Your task to perform on an android device: open app "Speedtest by Ookla" (install if not already installed), go to login, and select forgot password Image 0: 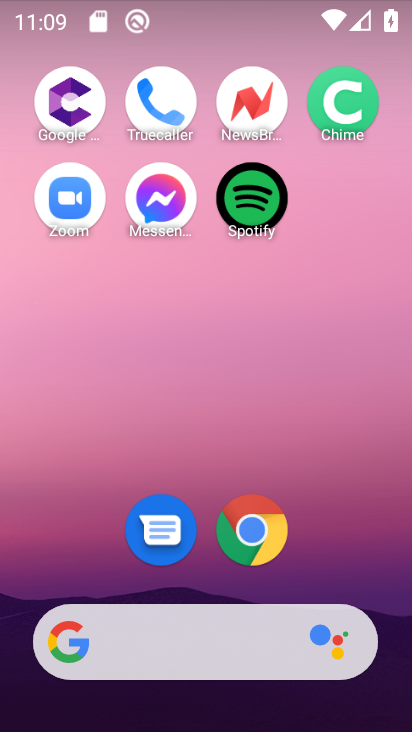
Step 0: drag from (166, 661) to (137, 47)
Your task to perform on an android device: open app "Speedtest by Ookla" (install if not already installed), go to login, and select forgot password Image 1: 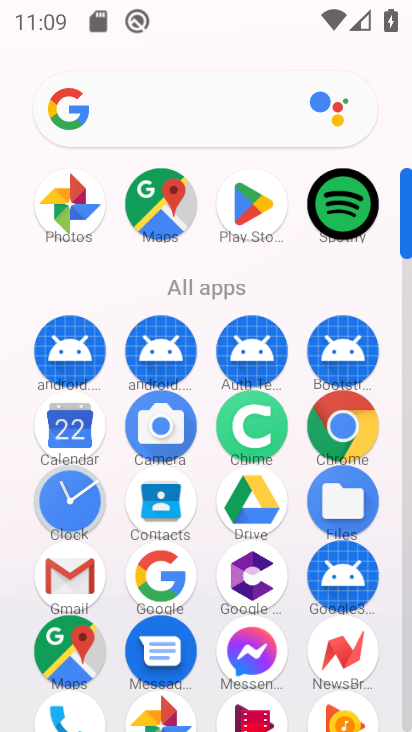
Step 1: click (251, 205)
Your task to perform on an android device: open app "Speedtest by Ookla" (install if not already installed), go to login, and select forgot password Image 2: 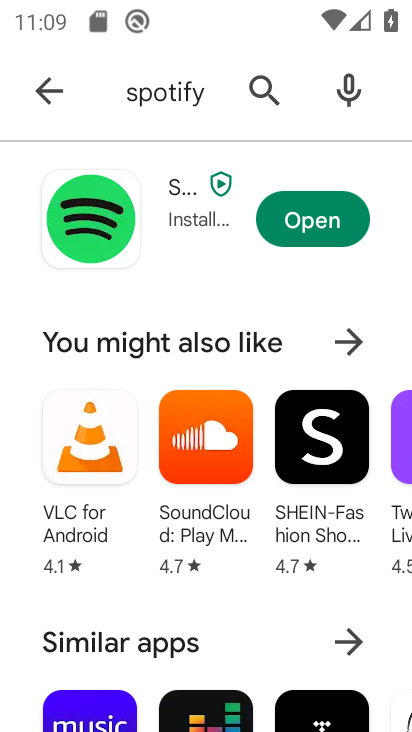
Step 2: press back button
Your task to perform on an android device: open app "Speedtest by Ookla" (install if not already installed), go to login, and select forgot password Image 3: 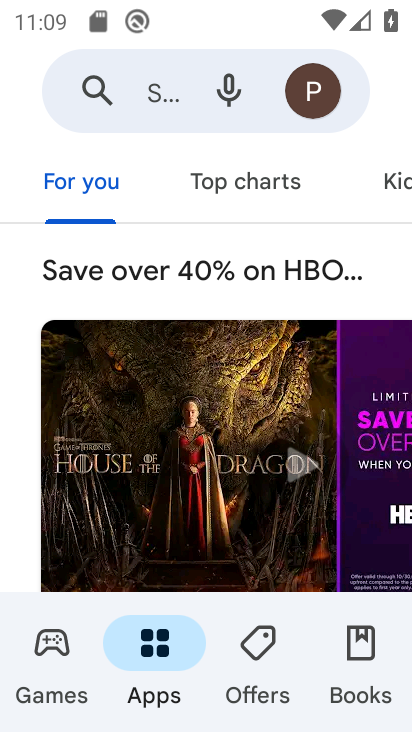
Step 3: click (184, 97)
Your task to perform on an android device: open app "Speedtest by Ookla" (install if not already installed), go to login, and select forgot password Image 4: 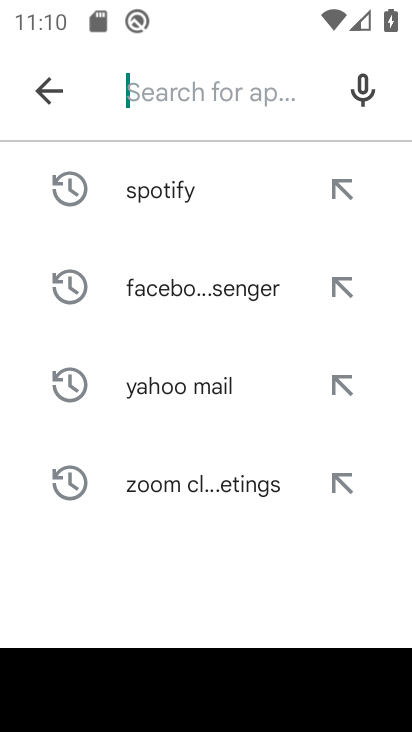
Step 4: type "Speedtest by Ookla"
Your task to perform on an android device: open app "Speedtest by Ookla" (install if not already installed), go to login, and select forgot password Image 5: 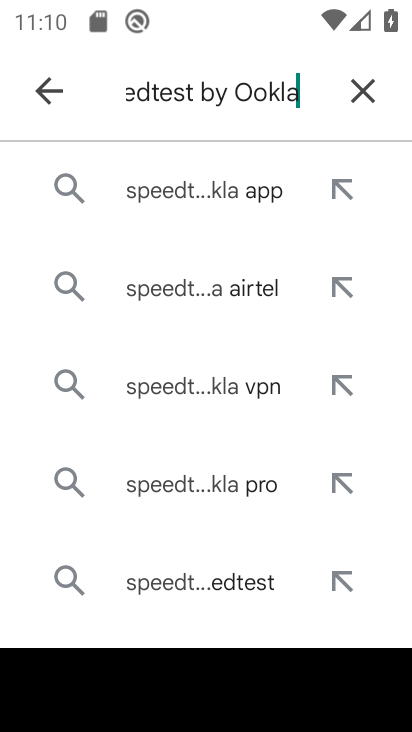
Step 5: click (268, 189)
Your task to perform on an android device: open app "Speedtest by Ookla" (install if not already installed), go to login, and select forgot password Image 6: 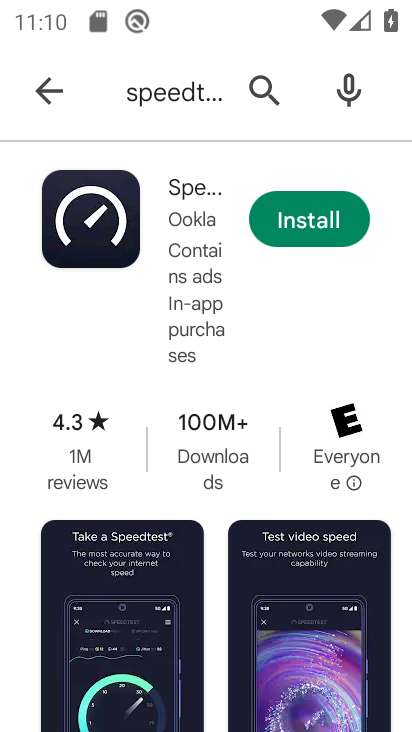
Step 6: click (312, 226)
Your task to perform on an android device: open app "Speedtest by Ookla" (install if not already installed), go to login, and select forgot password Image 7: 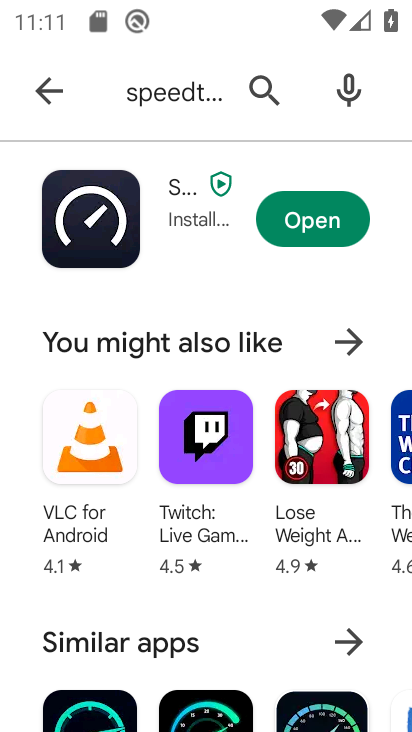
Step 7: click (312, 226)
Your task to perform on an android device: open app "Speedtest by Ookla" (install if not already installed), go to login, and select forgot password Image 8: 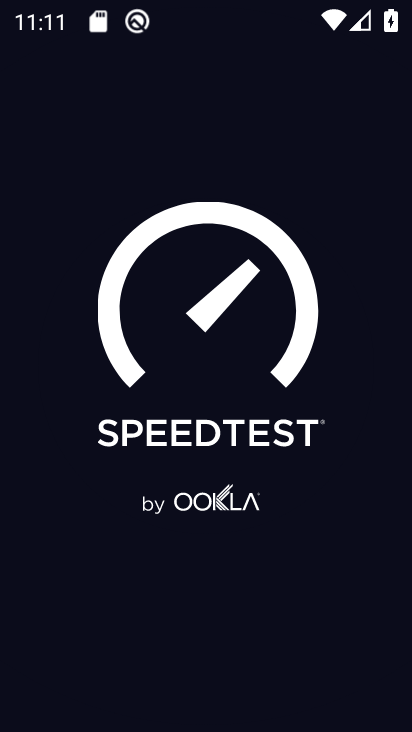
Step 8: click (302, 499)
Your task to perform on an android device: open app "Speedtest by Ookla" (install if not already installed), go to login, and select forgot password Image 9: 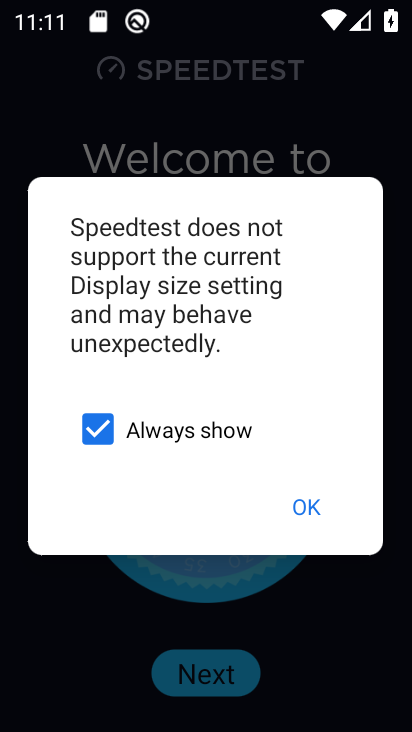
Step 9: click (311, 511)
Your task to perform on an android device: open app "Speedtest by Ookla" (install if not already installed), go to login, and select forgot password Image 10: 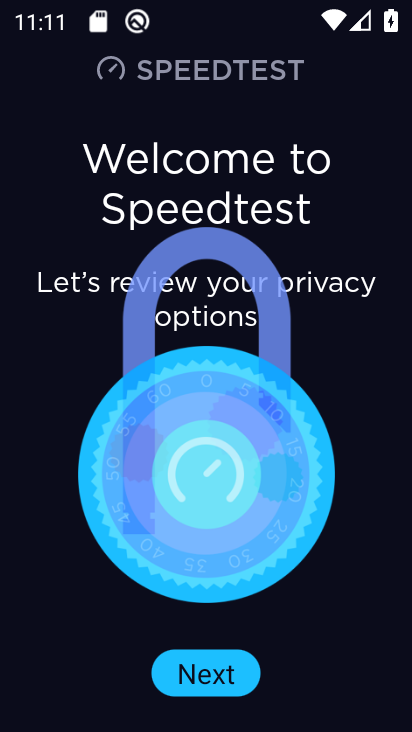
Step 10: click (197, 678)
Your task to perform on an android device: open app "Speedtest by Ookla" (install if not already installed), go to login, and select forgot password Image 11: 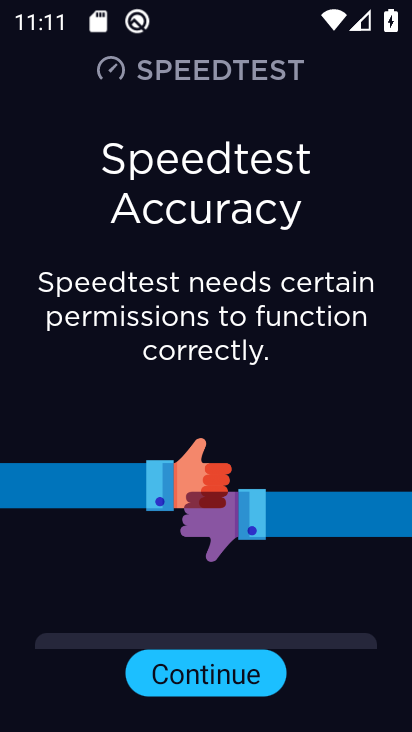
Step 11: click (197, 678)
Your task to perform on an android device: open app "Speedtest by Ookla" (install if not already installed), go to login, and select forgot password Image 12: 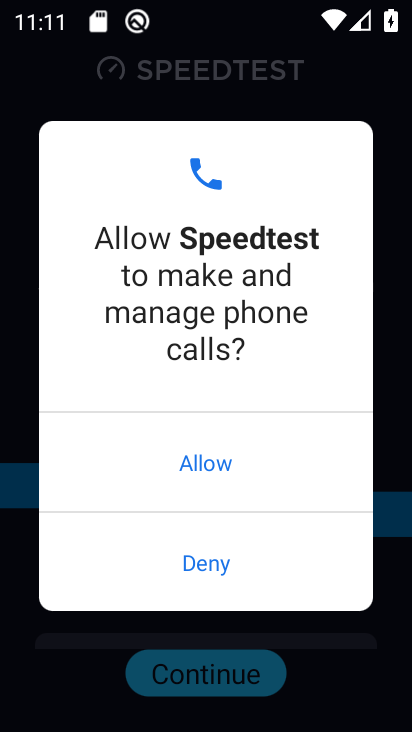
Step 12: click (214, 461)
Your task to perform on an android device: open app "Speedtest by Ookla" (install if not already installed), go to login, and select forgot password Image 13: 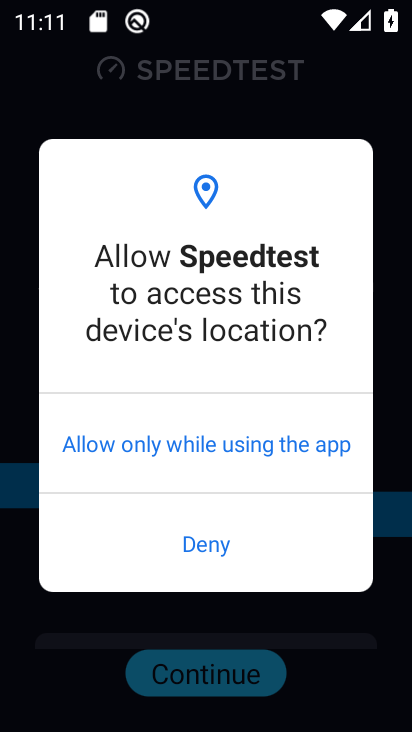
Step 13: click (203, 461)
Your task to perform on an android device: open app "Speedtest by Ookla" (install if not already installed), go to login, and select forgot password Image 14: 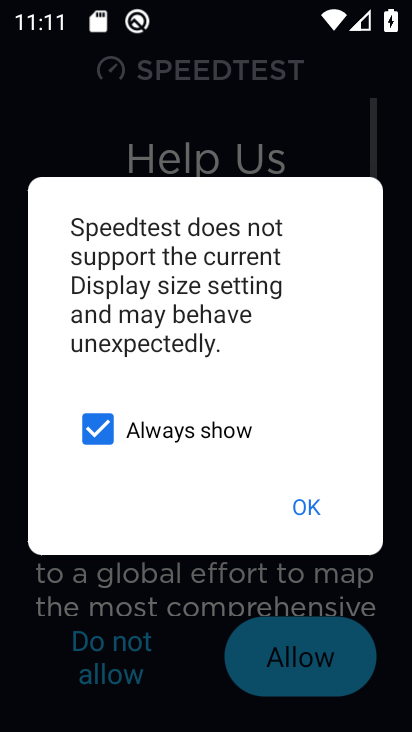
Step 14: click (308, 505)
Your task to perform on an android device: open app "Speedtest by Ookla" (install if not already installed), go to login, and select forgot password Image 15: 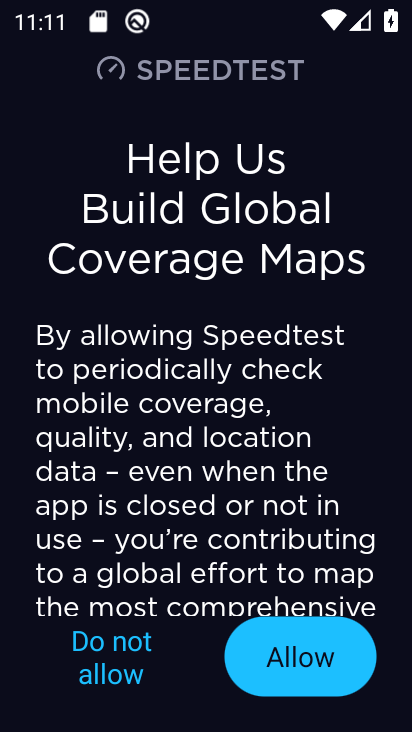
Step 15: click (291, 669)
Your task to perform on an android device: open app "Speedtest by Ookla" (install if not already installed), go to login, and select forgot password Image 16: 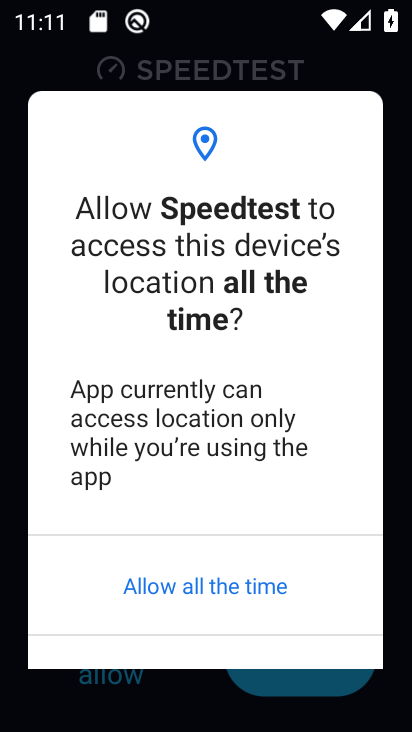
Step 16: click (250, 593)
Your task to perform on an android device: open app "Speedtest by Ookla" (install if not already installed), go to login, and select forgot password Image 17: 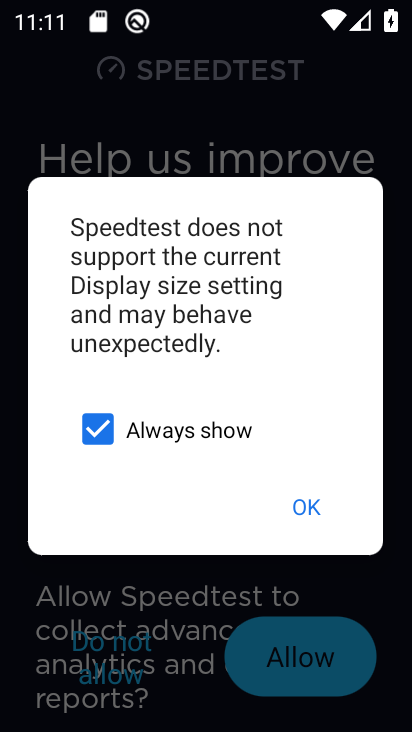
Step 17: click (308, 504)
Your task to perform on an android device: open app "Speedtest by Ookla" (install if not already installed), go to login, and select forgot password Image 18: 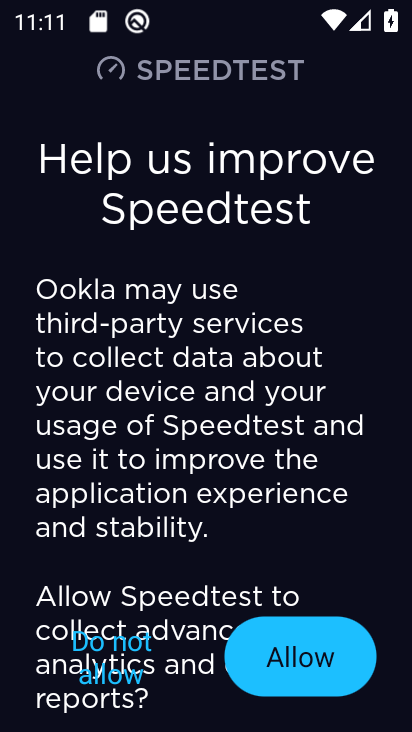
Step 18: click (280, 660)
Your task to perform on an android device: open app "Speedtest by Ookla" (install if not already installed), go to login, and select forgot password Image 19: 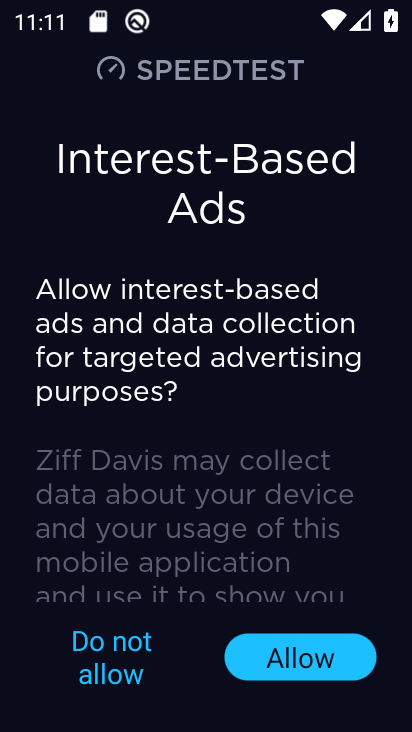
Step 19: click (280, 660)
Your task to perform on an android device: open app "Speedtest by Ookla" (install if not already installed), go to login, and select forgot password Image 20: 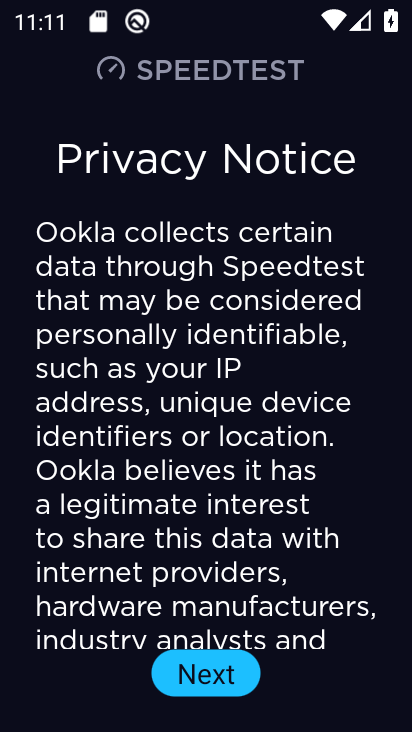
Step 20: click (209, 667)
Your task to perform on an android device: open app "Speedtest by Ookla" (install if not already installed), go to login, and select forgot password Image 21: 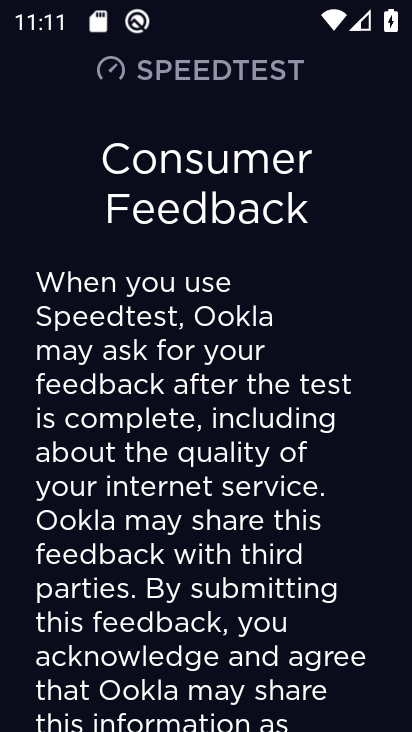
Step 21: drag from (135, 677) to (237, 203)
Your task to perform on an android device: open app "Speedtest by Ookla" (install if not already installed), go to login, and select forgot password Image 22: 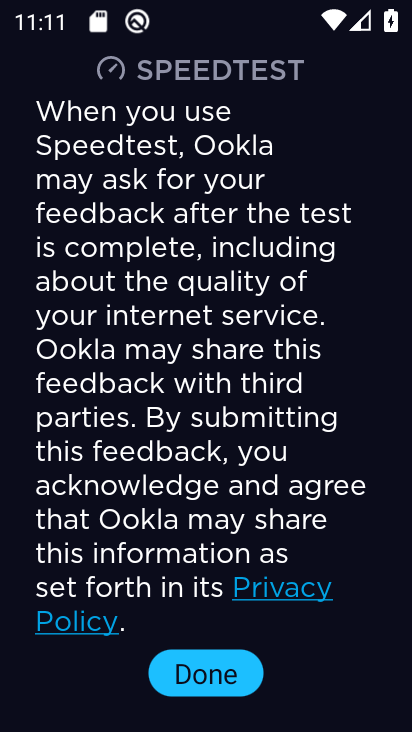
Step 22: click (213, 673)
Your task to perform on an android device: open app "Speedtest by Ookla" (install if not already installed), go to login, and select forgot password Image 23: 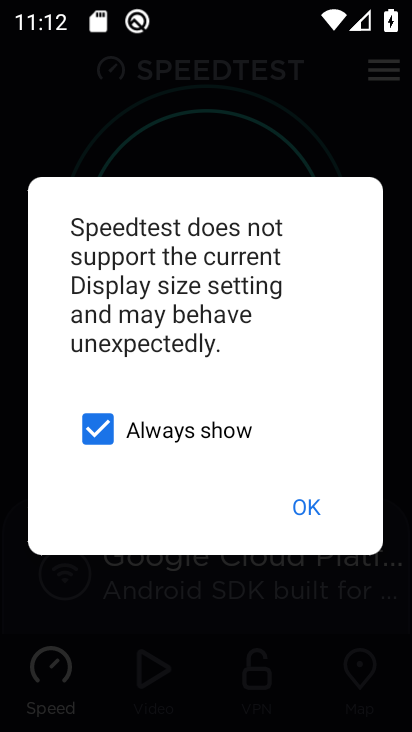
Step 23: click (311, 505)
Your task to perform on an android device: open app "Speedtest by Ookla" (install if not already installed), go to login, and select forgot password Image 24: 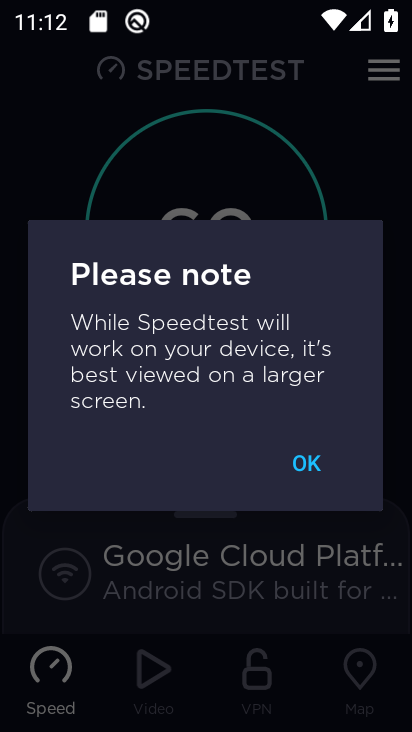
Step 24: click (304, 466)
Your task to perform on an android device: open app "Speedtest by Ookla" (install if not already installed), go to login, and select forgot password Image 25: 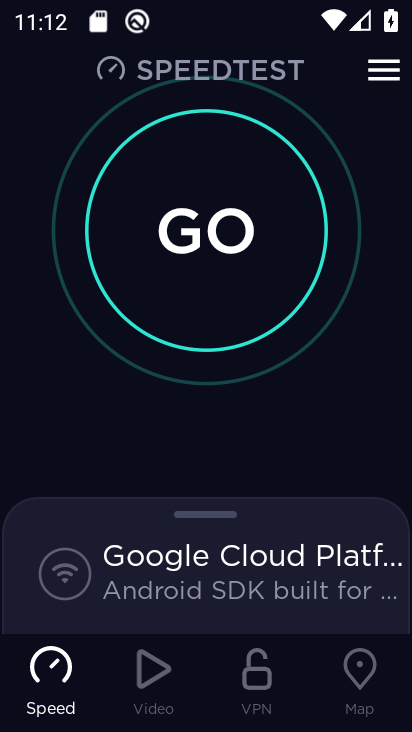
Step 25: click (380, 81)
Your task to perform on an android device: open app "Speedtest by Ookla" (install if not already installed), go to login, and select forgot password Image 26: 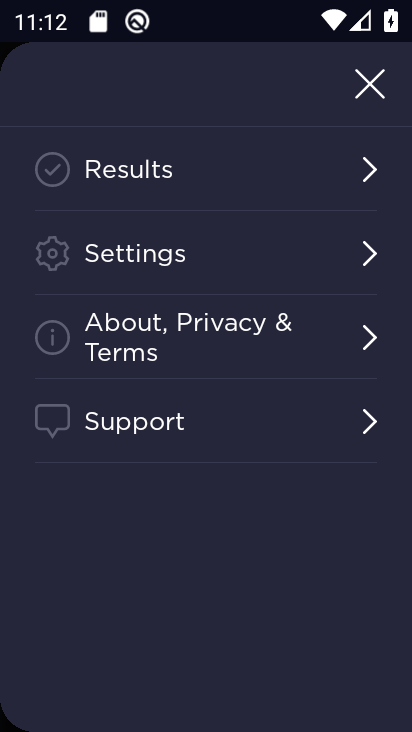
Step 26: click (186, 253)
Your task to perform on an android device: open app "Speedtest by Ookla" (install if not already installed), go to login, and select forgot password Image 27: 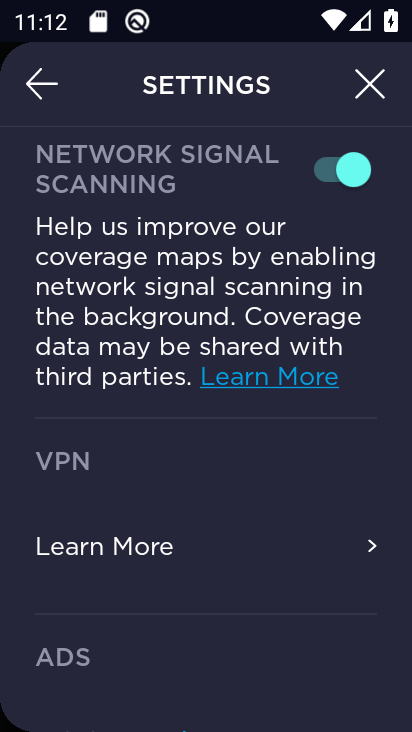
Step 27: task complete